Your task to perform on an android device: Go to Reddit.com Image 0: 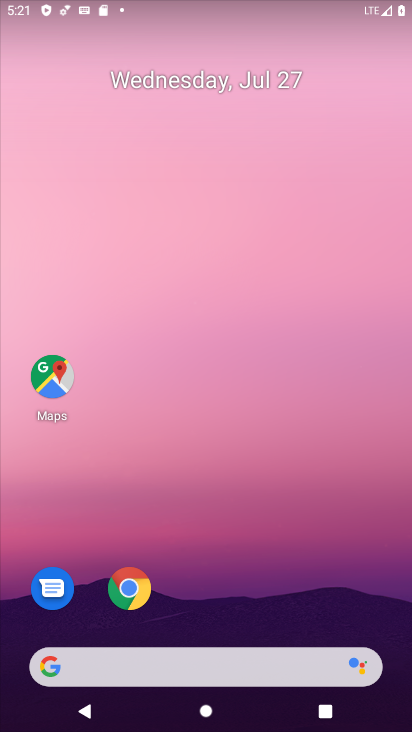
Step 0: drag from (294, 663) to (382, 4)
Your task to perform on an android device: Go to Reddit.com Image 1: 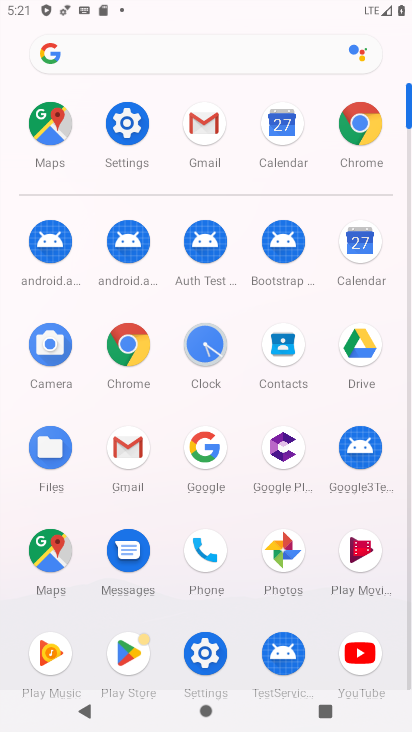
Step 1: click (135, 339)
Your task to perform on an android device: Go to Reddit.com Image 2: 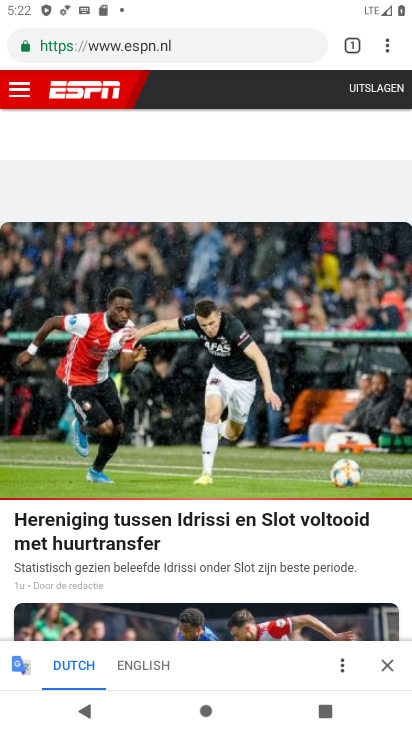
Step 2: click (387, 39)
Your task to perform on an android device: Go to Reddit.com Image 3: 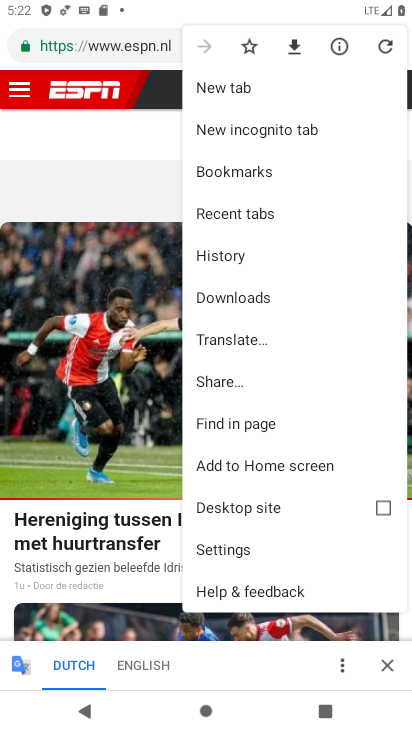
Step 3: click (230, 75)
Your task to perform on an android device: Go to Reddit.com Image 4: 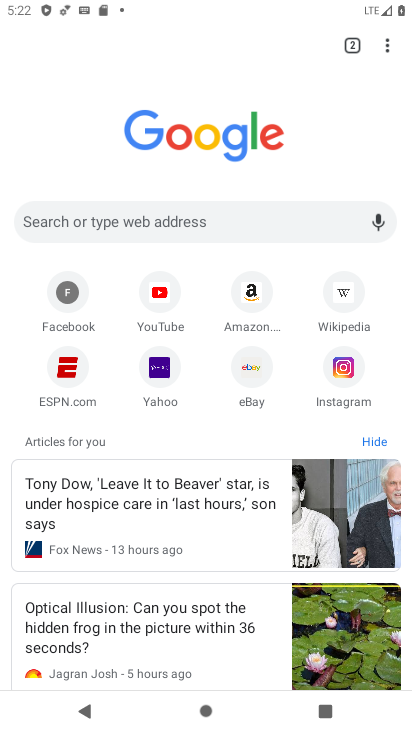
Step 4: click (205, 220)
Your task to perform on an android device: Go to Reddit.com Image 5: 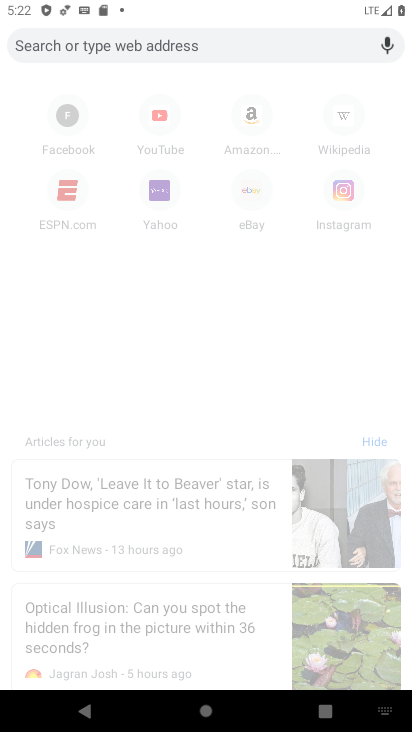
Step 5: type "reddit.com"
Your task to perform on an android device: Go to Reddit.com Image 6: 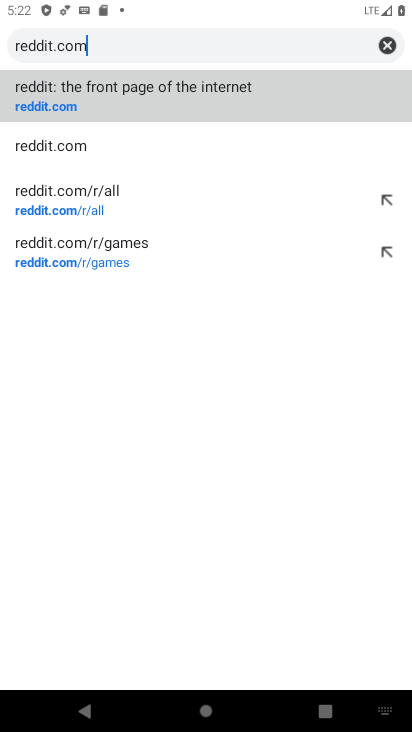
Step 6: click (241, 82)
Your task to perform on an android device: Go to Reddit.com Image 7: 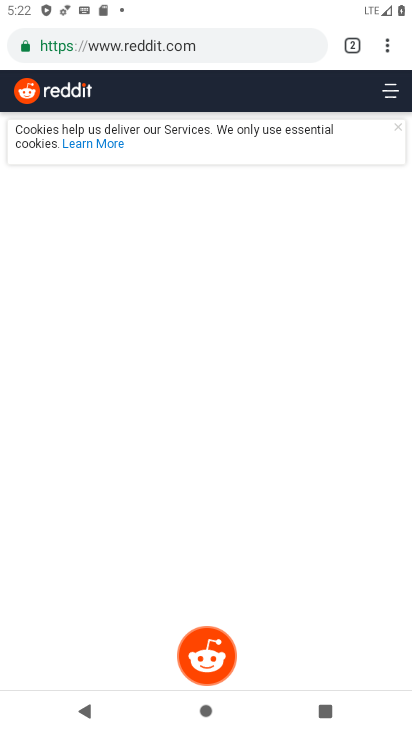
Step 7: task complete